Your task to perform on an android device: Play the last video I watched on Youtube Image 0: 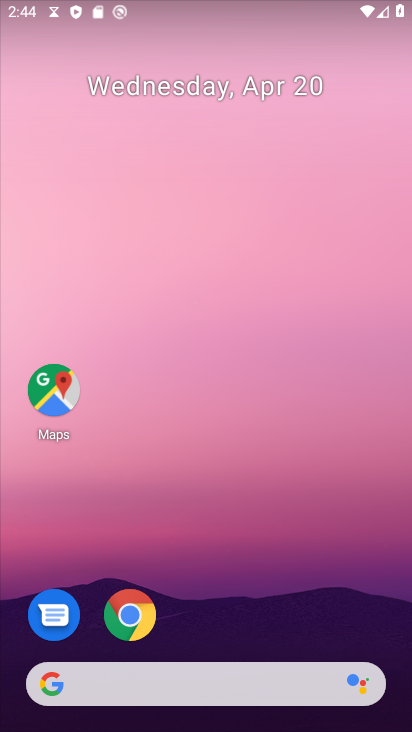
Step 0: drag from (211, 532) to (284, 227)
Your task to perform on an android device: Play the last video I watched on Youtube Image 1: 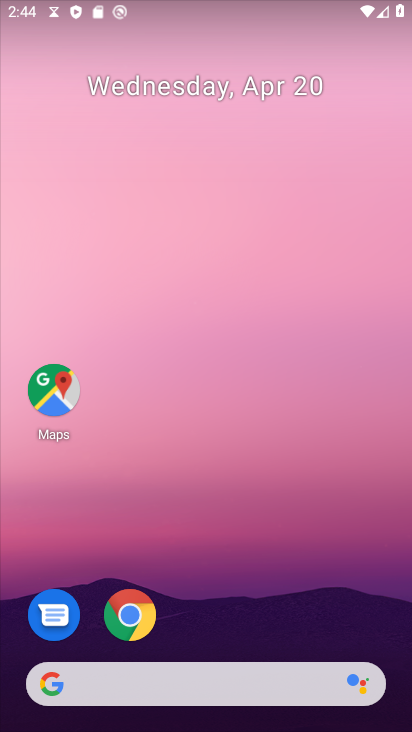
Step 1: drag from (205, 630) to (282, 158)
Your task to perform on an android device: Play the last video I watched on Youtube Image 2: 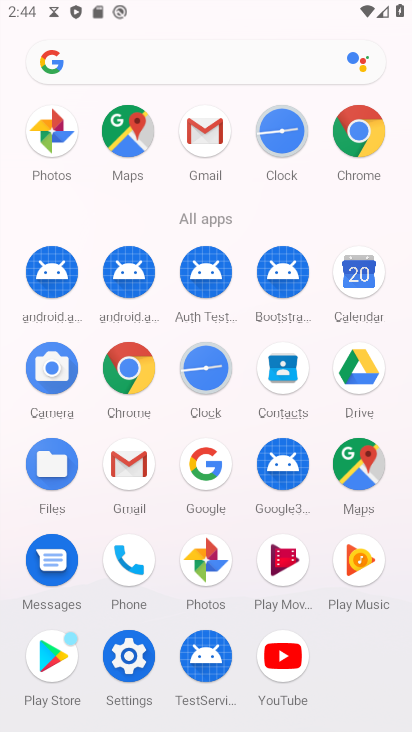
Step 2: click (286, 643)
Your task to perform on an android device: Play the last video I watched on Youtube Image 3: 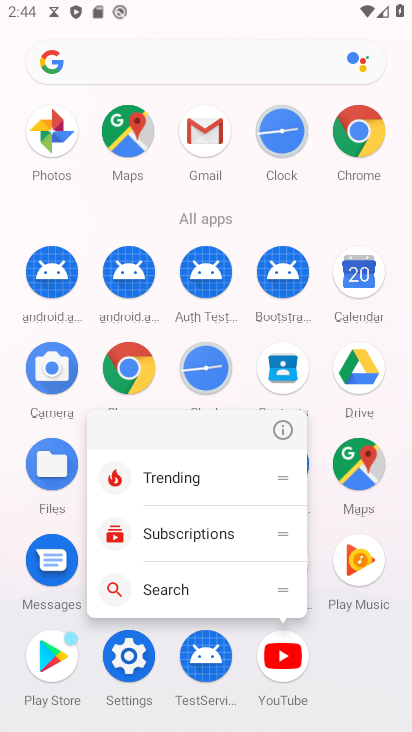
Step 3: click (274, 433)
Your task to perform on an android device: Play the last video I watched on Youtube Image 4: 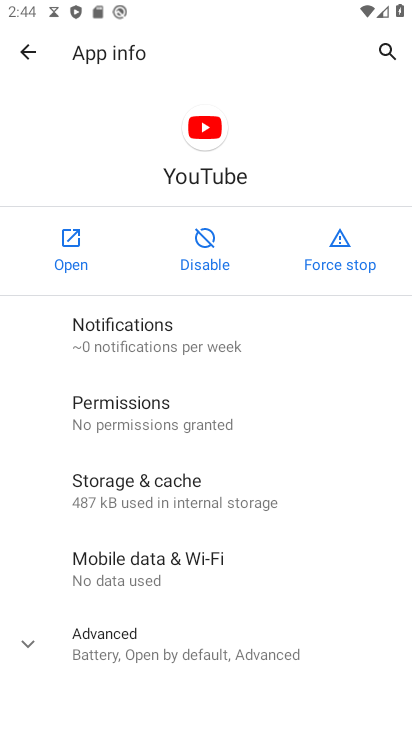
Step 4: click (87, 239)
Your task to perform on an android device: Play the last video I watched on Youtube Image 5: 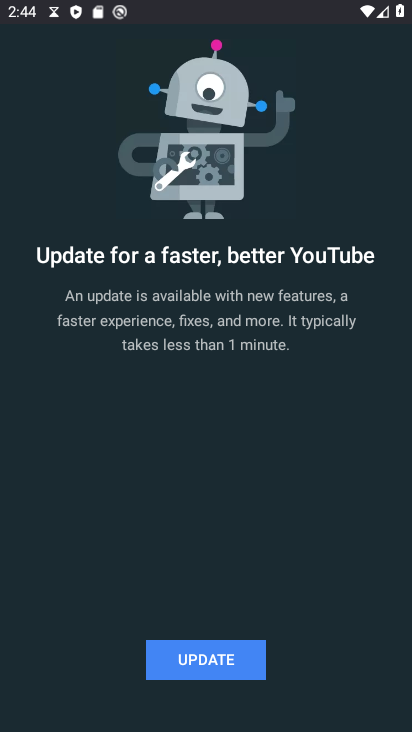
Step 5: task complete